Your task to perform on an android device: open app "Truecaller" (install if not already installed) and go to login screen Image 0: 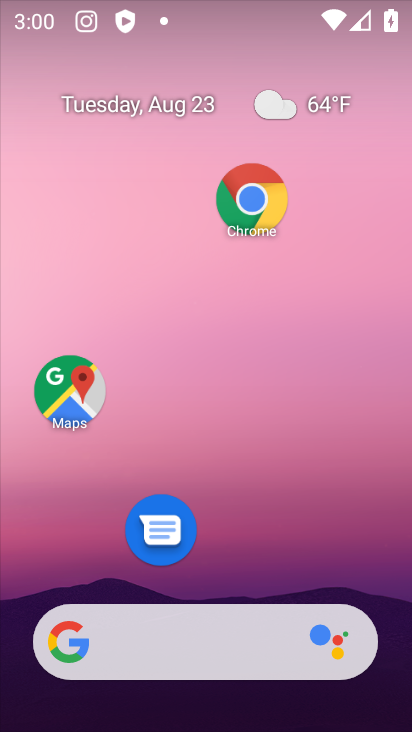
Step 0: drag from (236, 546) to (327, 3)
Your task to perform on an android device: open app "Truecaller" (install if not already installed) and go to login screen Image 1: 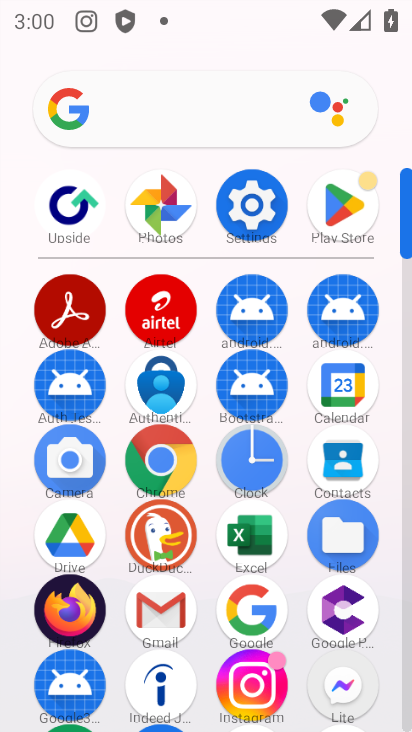
Step 1: click (346, 215)
Your task to perform on an android device: open app "Truecaller" (install if not already installed) and go to login screen Image 2: 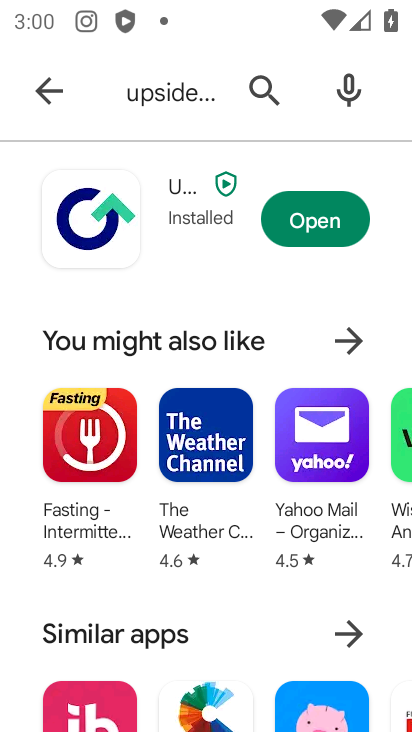
Step 2: click (184, 93)
Your task to perform on an android device: open app "Truecaller" (install if not already installed) and go to login screen Image 3: 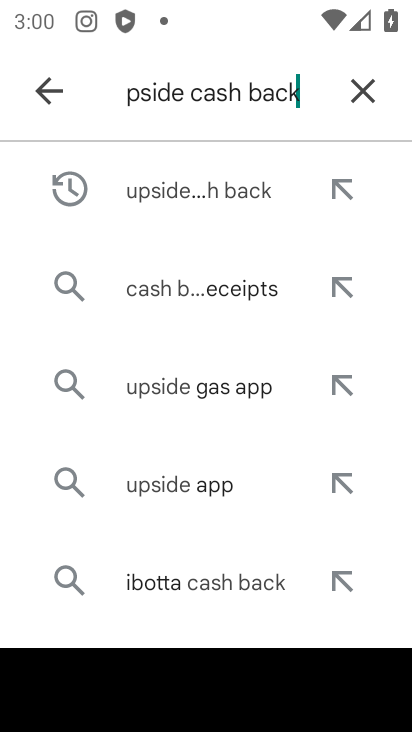
Step 3: click (360, 83)
Your task to perform on an android device: open app "Truecaller" (install if not already installed) and go to login screen Image 4: 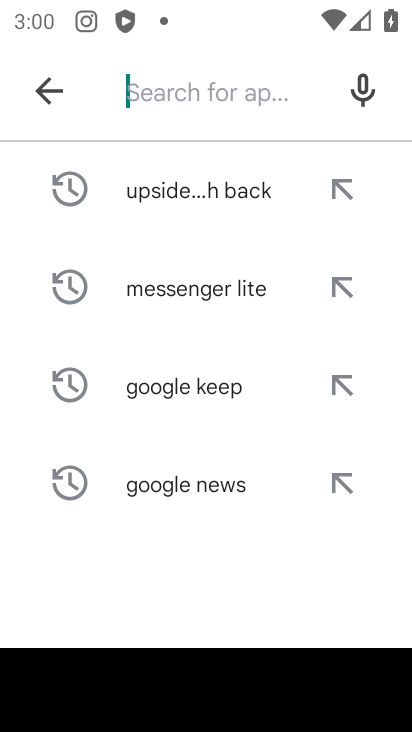
Step 4: type "truecaller"
Your task to perform on an android device: open app "Truecaller" (install if not already installed) and go to login screen Image 5: 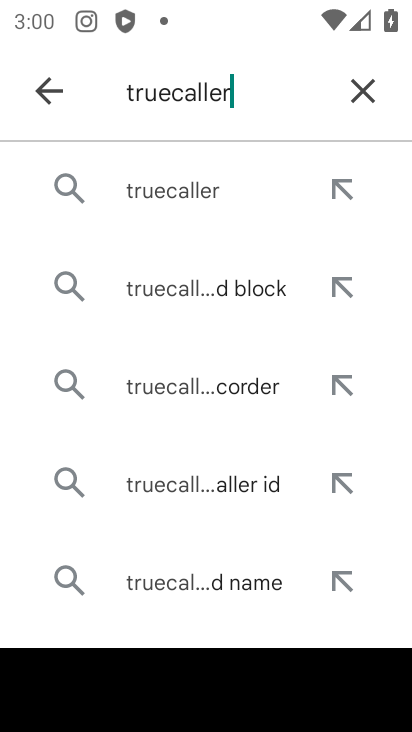
Step 5: click (193, 197)
Your task to perform on an android device: open app "Truecaller" (install if not already installed) and go to login screen Image 6: 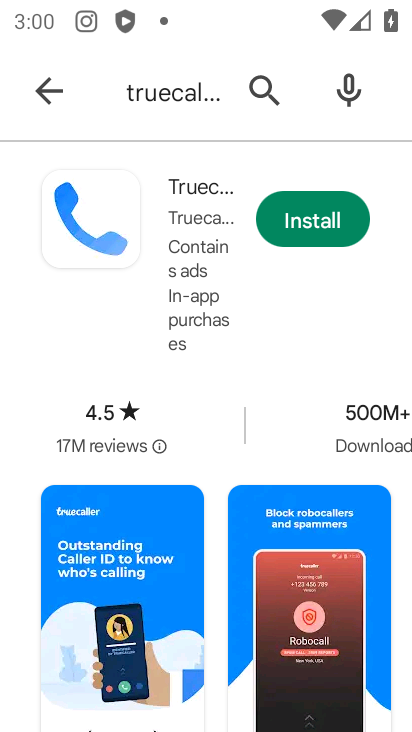
Step 6: click (344, 224)
Your task to perform on an android device: open app "Truecaller" (install if not already installed) and go to login screen Image 7: 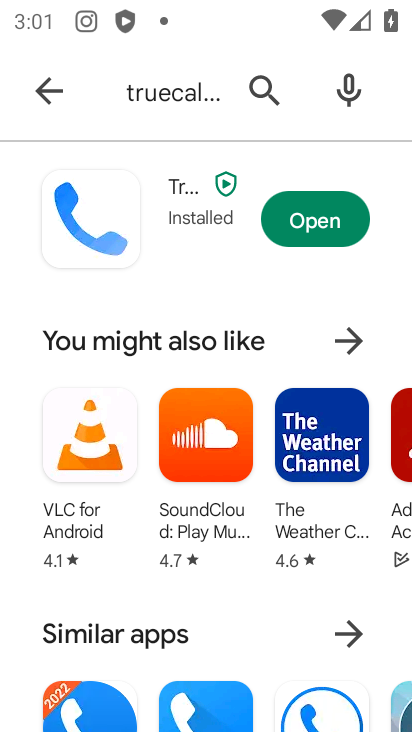
Step 7: click (314, 223)
Your task to perform on an android device: open app "Truecaller" (install if not already installed) and go to login screen Image 8: 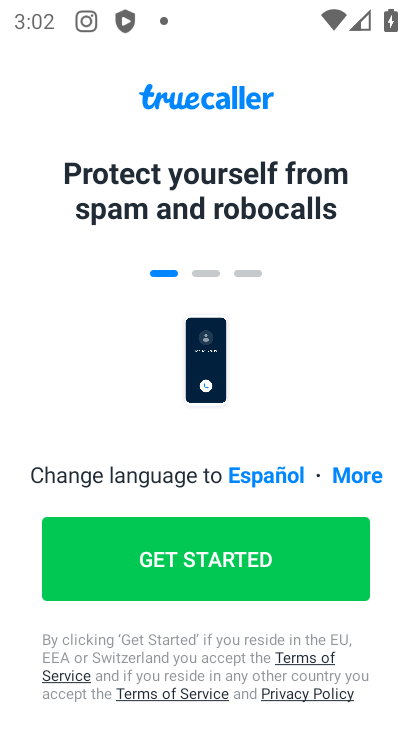
Step 8: click (257, 554)
Your task to perform on an android device: open app "Truecaller" (install if not already installed) and go to login screen Image 9: 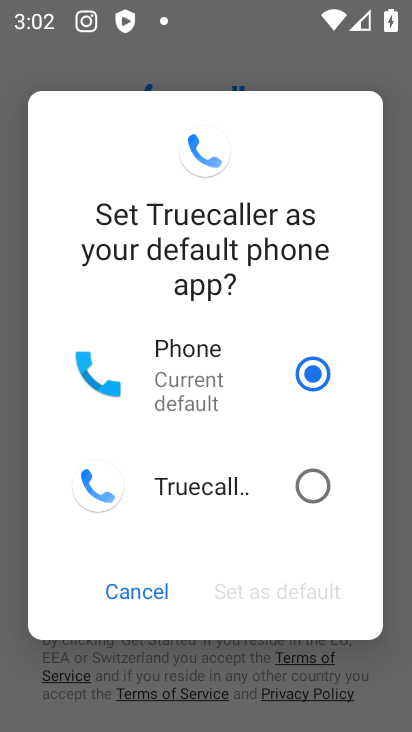
Step 9: click (249, 488)
Your task to perform on an android device: open app "Truecaller" (install if not already installed) and go to login screen Image 10: 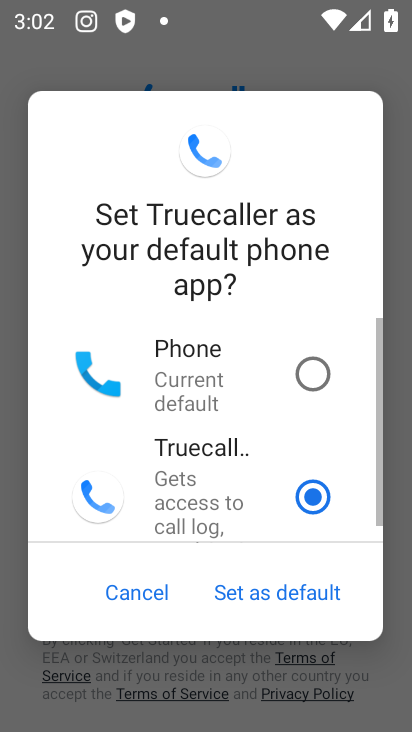
Step 10: click (275, 588)
Your task to perform on an android device: open app "Truecaller" (install if not already installed) and go to login screen Image 11: 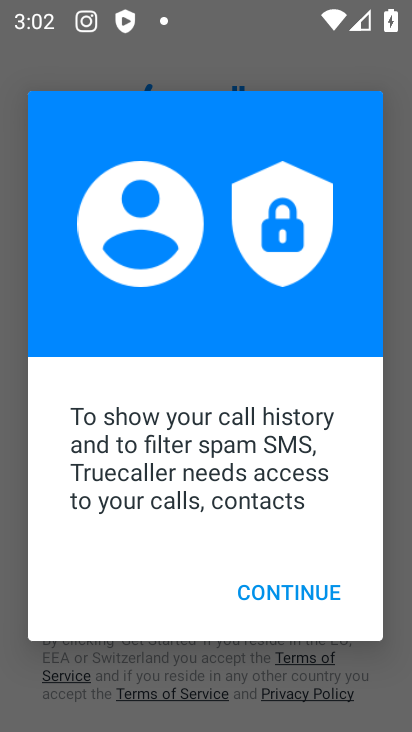
Step 11: click (287, 592)
Your task to perform on an android device: open app "Truecaller" (install if not already installed) and go to login screen Image 12: 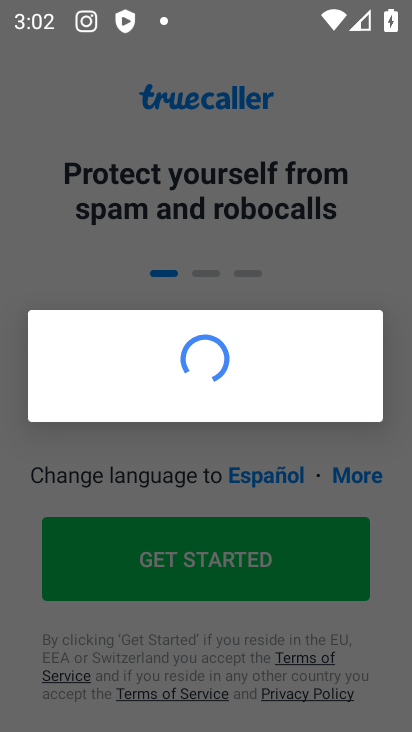
Step 12: click (266, 565)
Your task to perform on an android device: open app "Truecaller" (install if not already installed) and go to login screen Image 13: 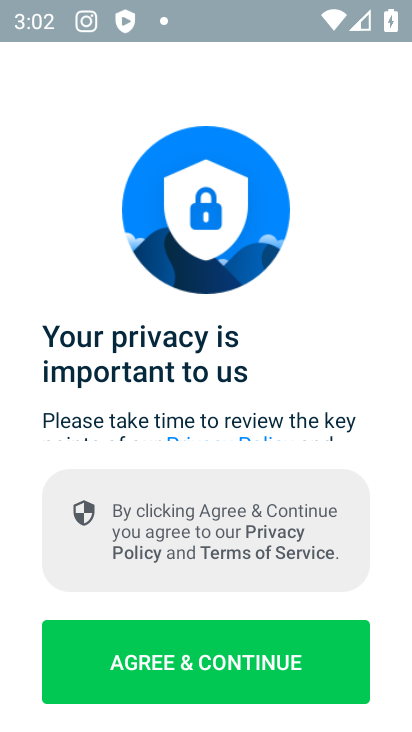
Step 13: click (234, 659)
Your task to perform on an android device: open app "Truecaller" (install if not already installed) and go to login screen Image 14: 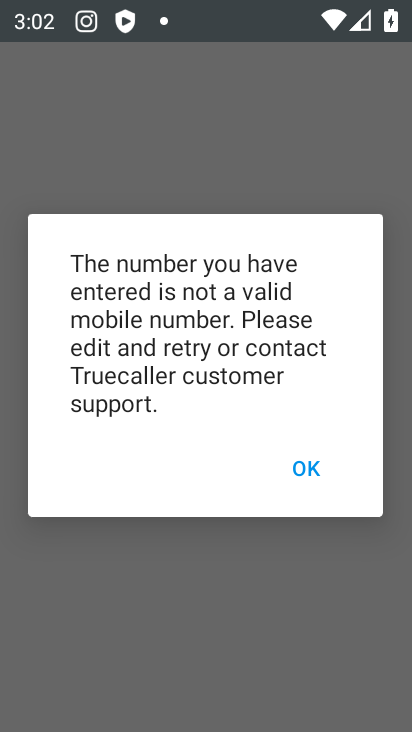
Step 14: click (309, 464)
Your task to perform on an android device: open app "Truecaller" (install if not already installed) and go to login screen Image 15: 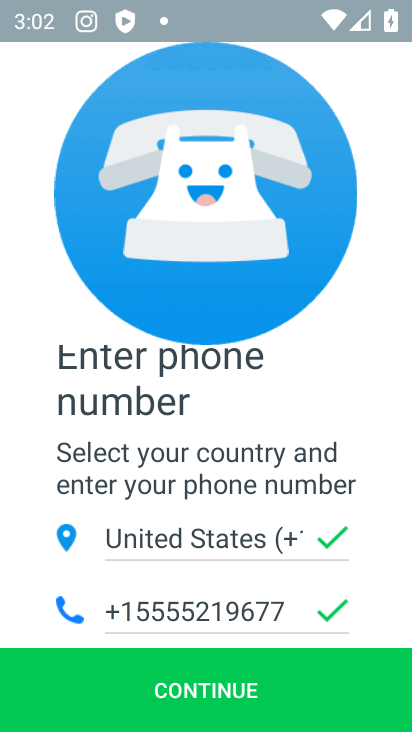
Step 15: click (239, 695)
Your task to perform on an android device: open app "Truecaller" (install if not already installed) and go to login screen Image 16: 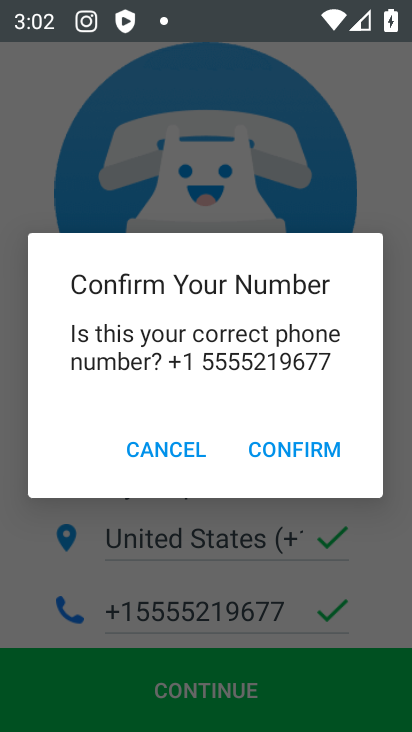
Step 16: click (305, 456)
Your task to perform on an android device: open app "Truecaller" (install if not already installed) and go to login screen Image 17: 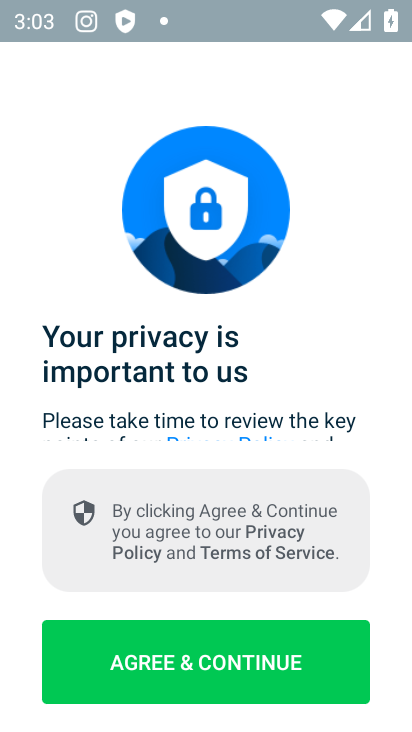
Step 17: click (289, 659)
Your task to perform on an android device: open app "Truecaller" (install if not already installed) and go to login screen Image 18: 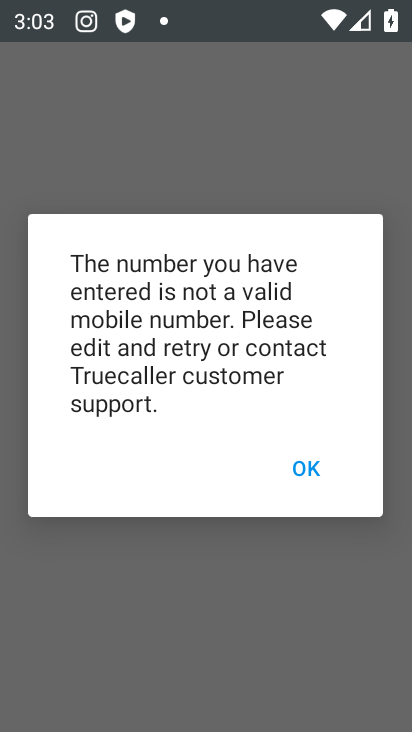
Step 18: click (307, 470)
Your task to perform on an android device: open app "Truecaller" (install if not already installed) and go to login screen Image 19: 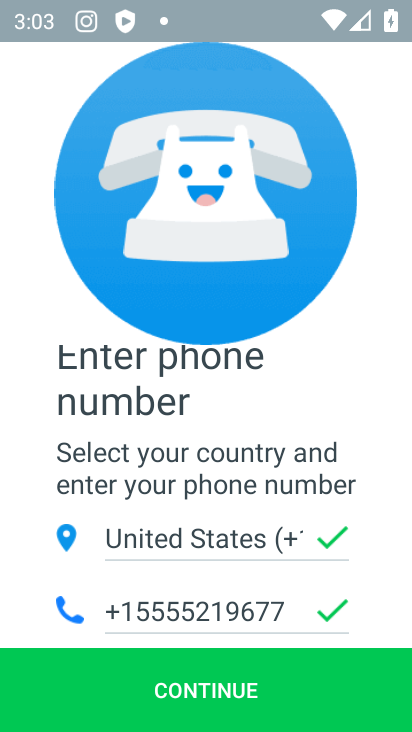
Step 19: task complete